Your task to perform on an android device: Go to accessibility settings Image 0: 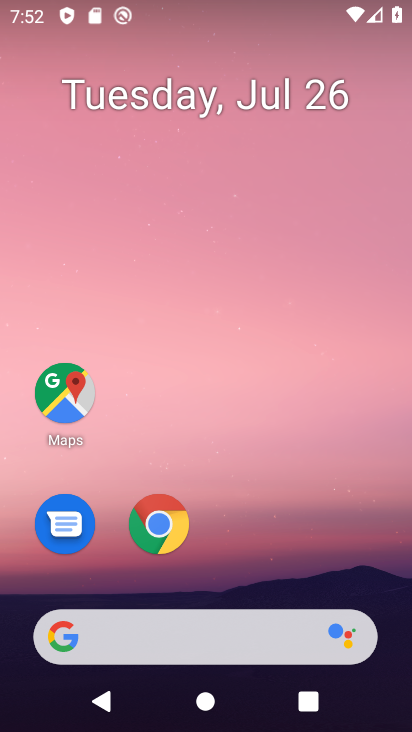
Step 0: drag from (264, 567) to (278, 23)
Your task to perform on an android device: Go to accessibility settings Image 1: 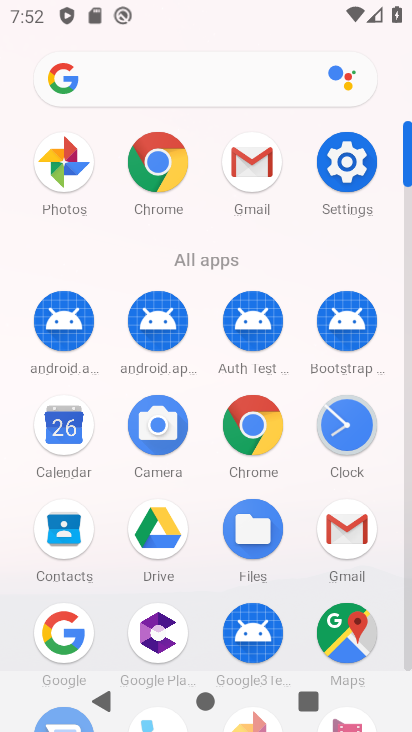
Step 1: click (354, 159)
Your task to perform on an android device: Go to accessibility settings Image 2: 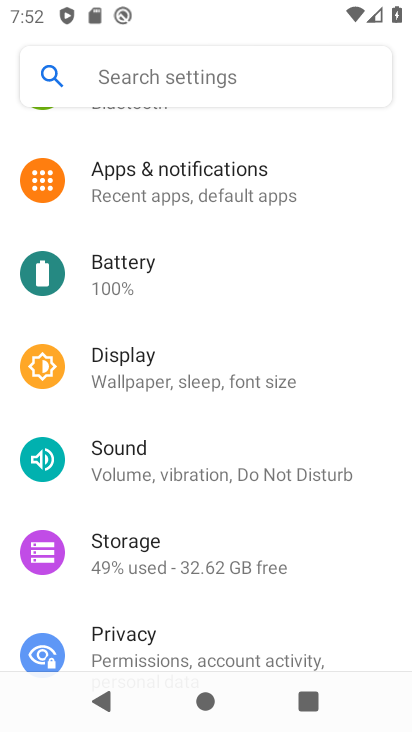
Step 2: drag from (223, 602) to (277, 0)
Your task to perform on an android device: Go to accessibility settings Image 3: 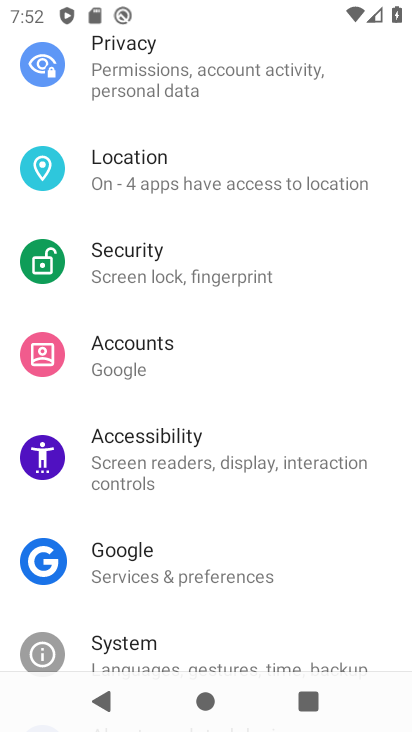
Step 3: click (198, 452)
Your task to perform on an android device: Go to accessibility settings Image 4: 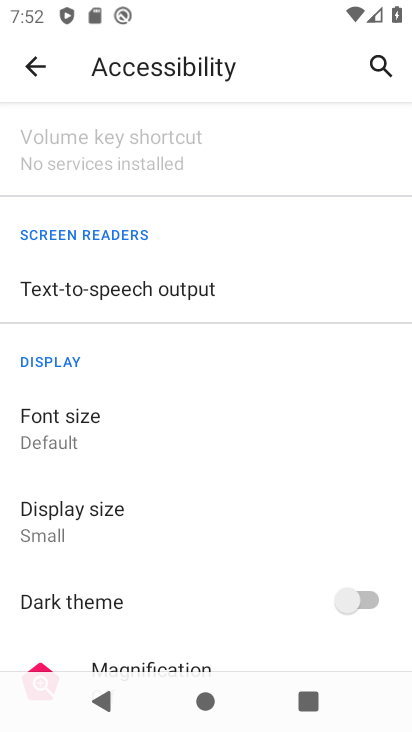
Step 4: task complete